Your task to perform on an android device: Search for Italian restaurants on Maps Image 0: 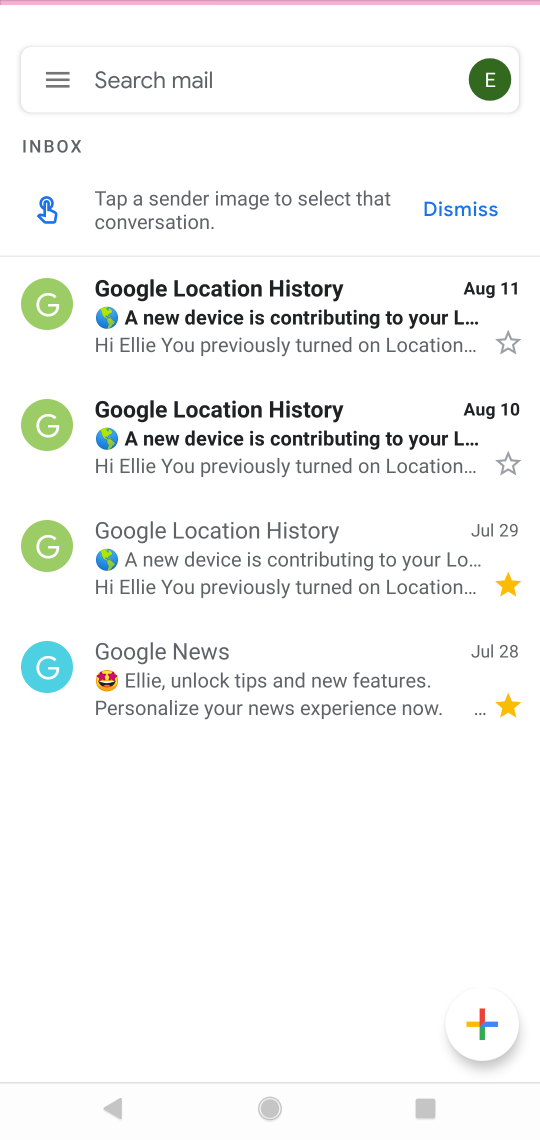
Step 0: press home button
Your task to perform on an android device: Search for Italian restaurants on Maps Image 1: 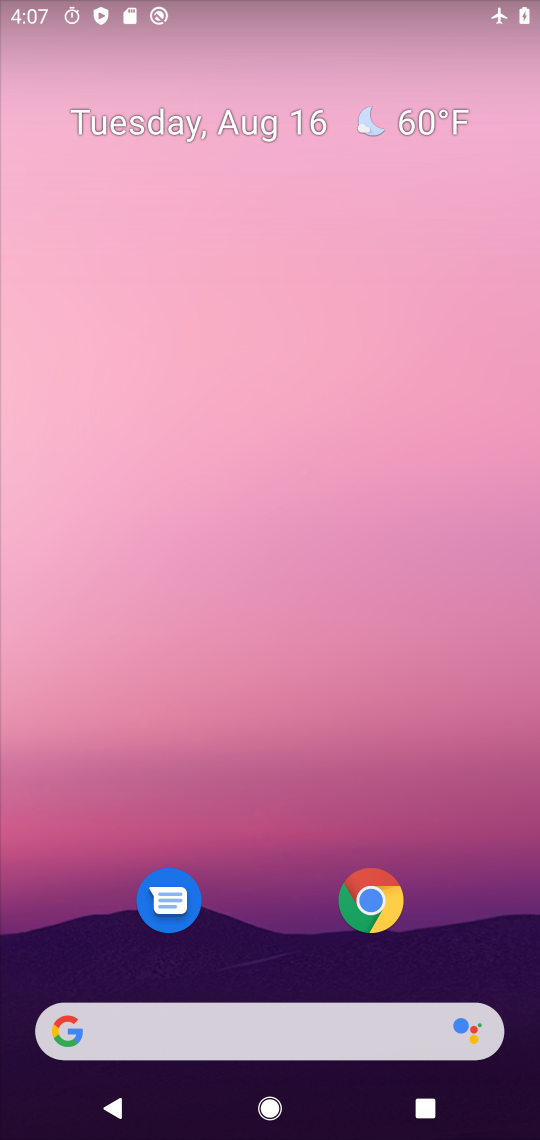
Step 1: drag from (286, 942) to (259, 41)
Your task to perform on an android device: Search for Italian restaurants on Maps Image 2: 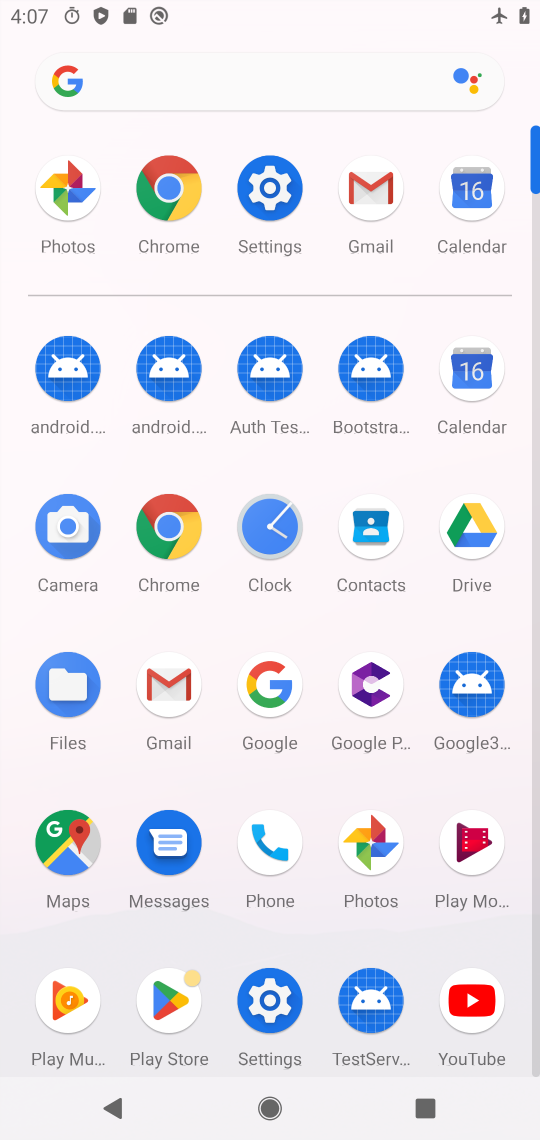
Step 2: click (74, 852)
Your task to perform on an android device: Search for Italian restaurants on Maps Image 3: 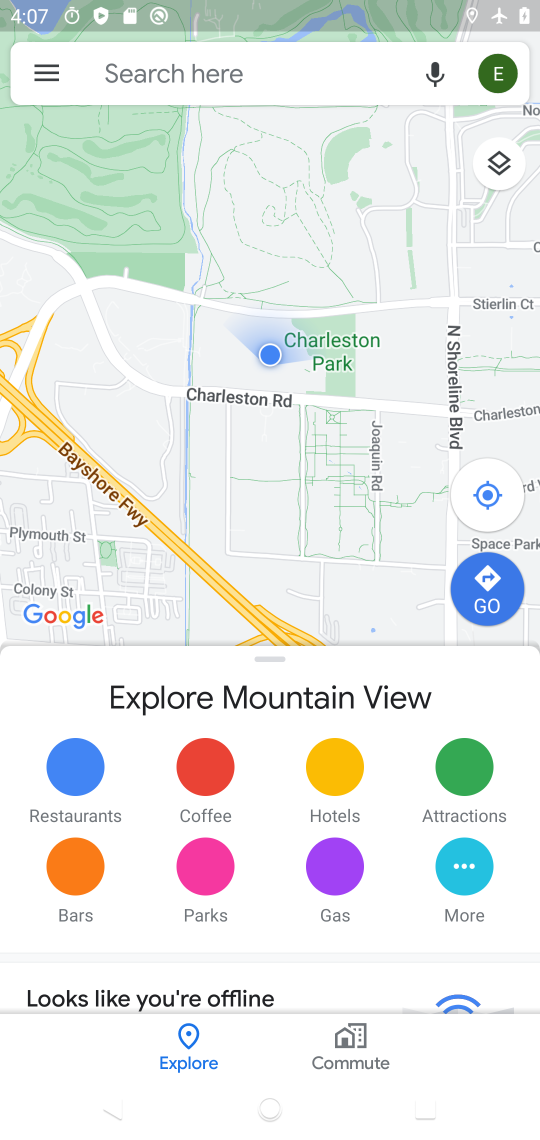
Step 3: click (210, 82)
Your task to perform on an android device: Search for Italian restaurants on Maps Image 4: 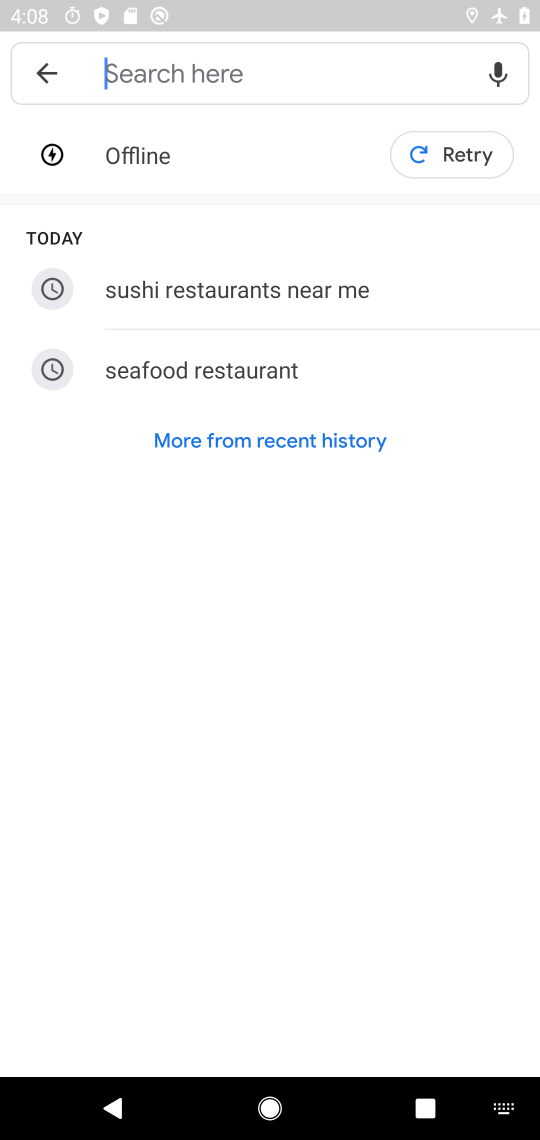
Step 4: type "Italian restaurants"
Your task to perform on an android device: Search for Italian restaurants on Maps Image 5: 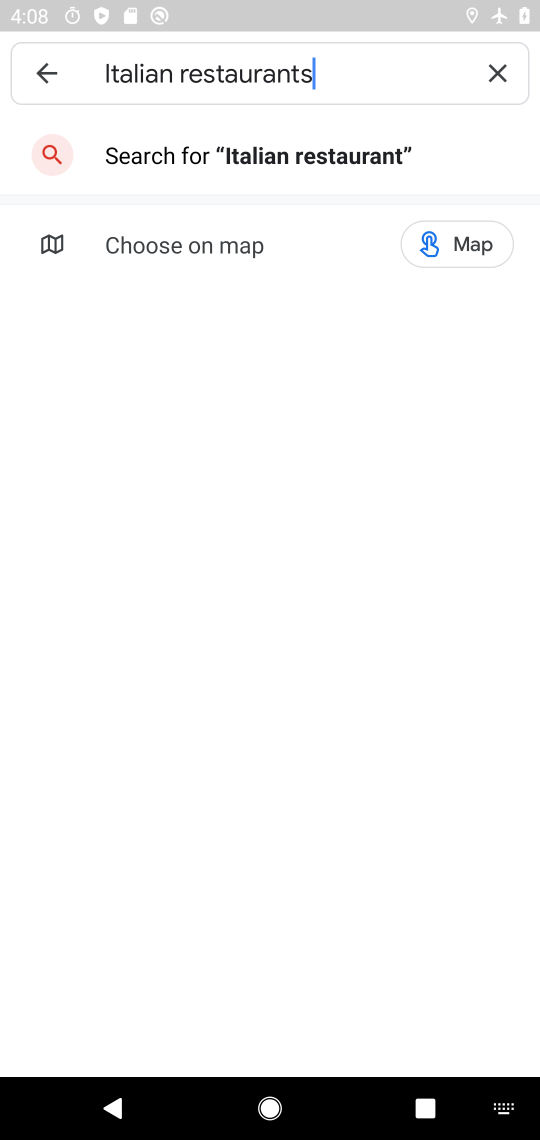
Step 5: type ""
Your task to perform on an android device: Search for Italian restaurants on Maps Image 6: 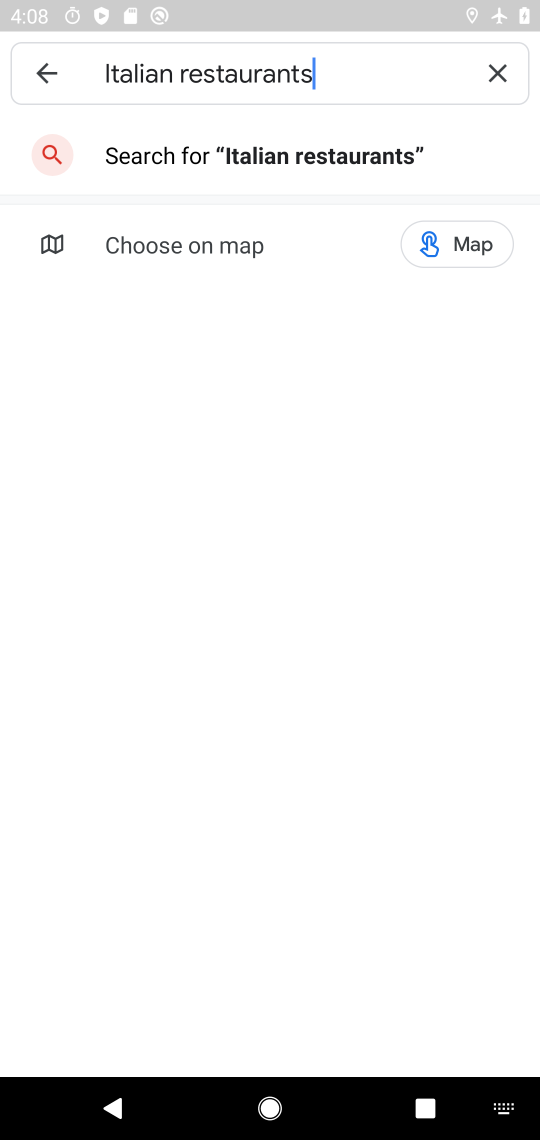
Step 6: click (256, 152)
Your task to perform on an android device: Search for Italian restaurants on Maps Image 7: 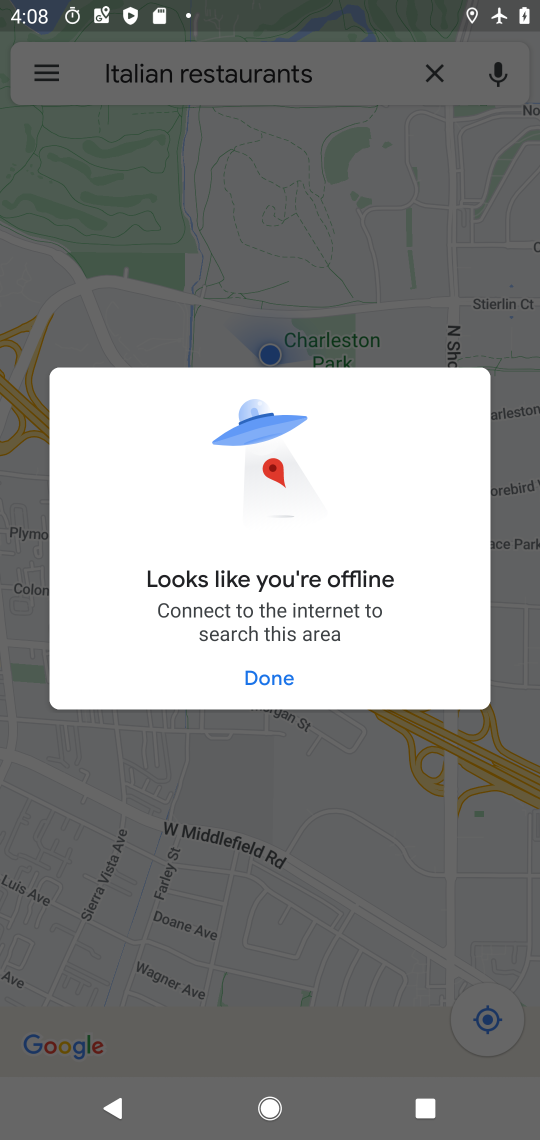
Step 7: task complete